Your task to perform on an android device: check battery use Image 0: 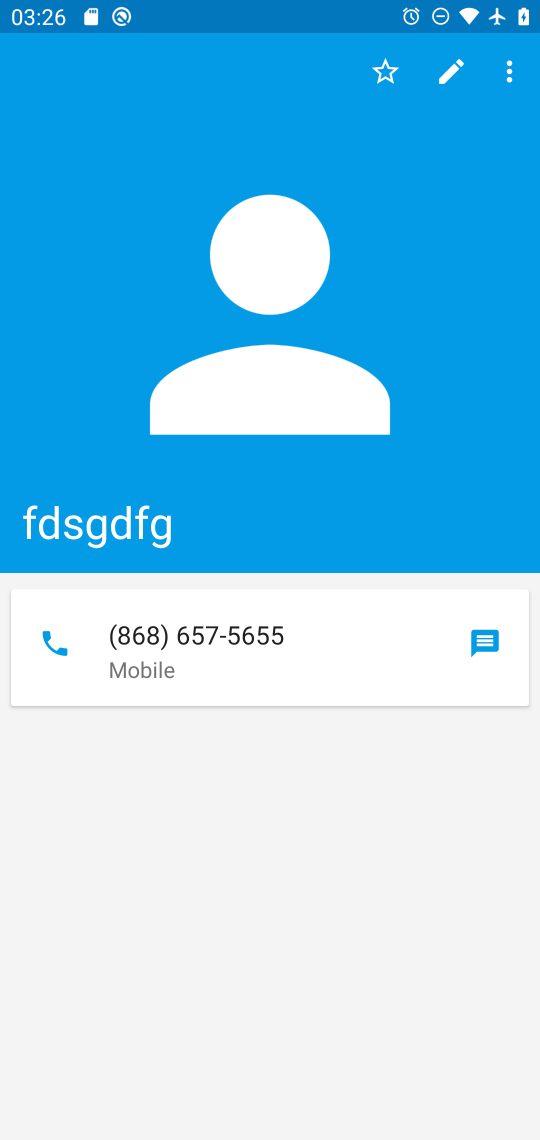
Step 0: press home button
Your task to perform on an android device: check battery use Image 1: 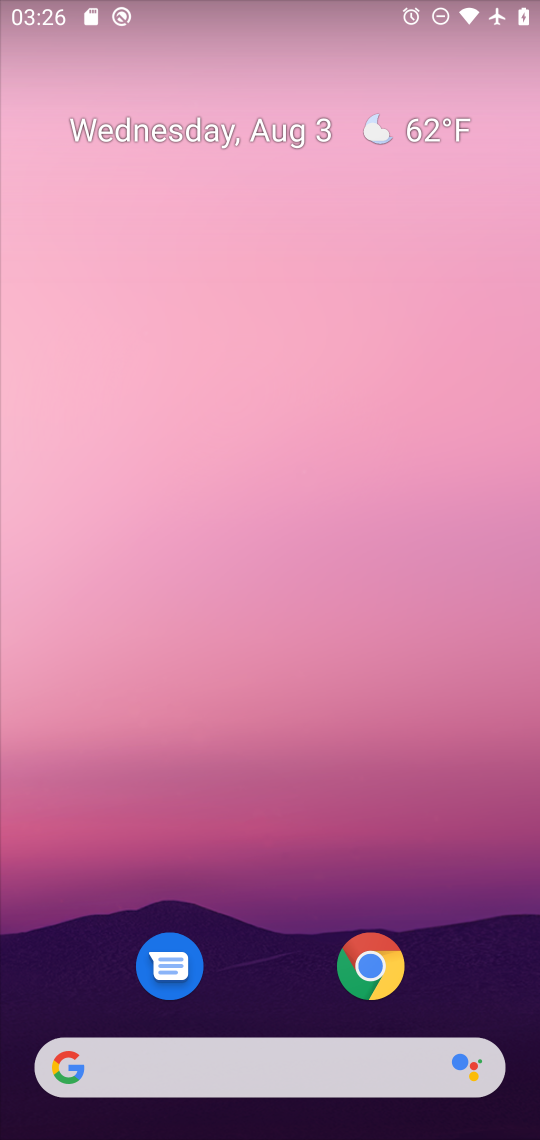
Step 1: drag from (264, 983) to (307, 253)
Your task to perform on an android device: check battery use Image 2: 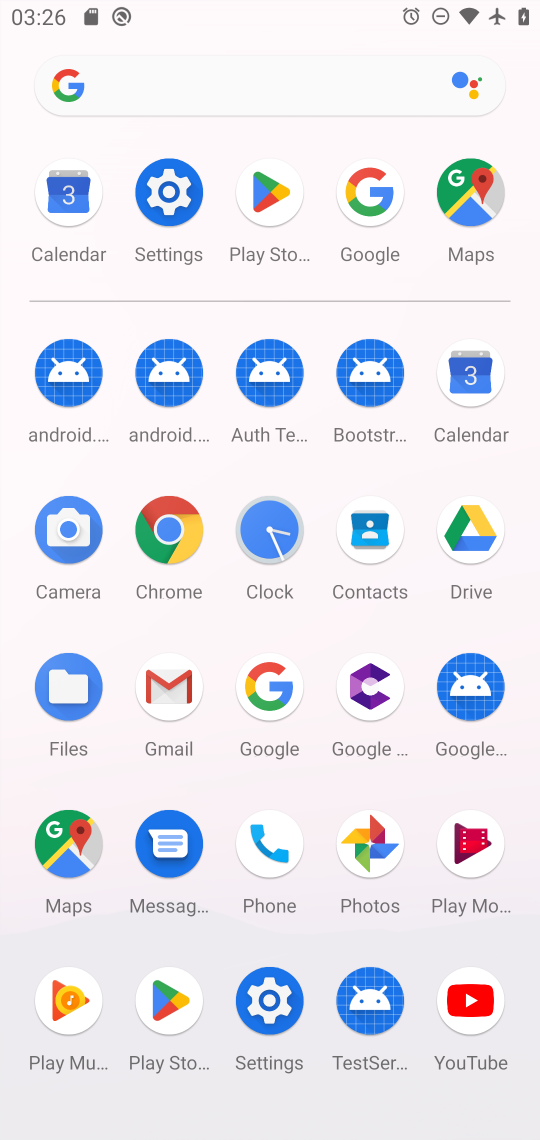
Step 2: click (187, 194)
Your task to perform on an android device: check battery use Image 3: 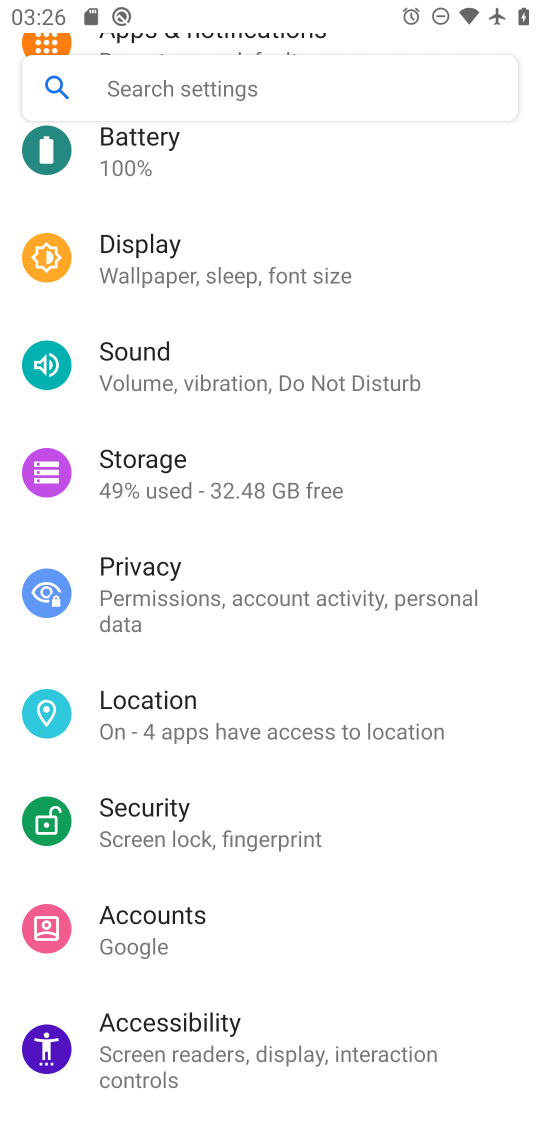
Step 3: click (153, 156)
Your task to perform on an android device: check battery use Image 4: 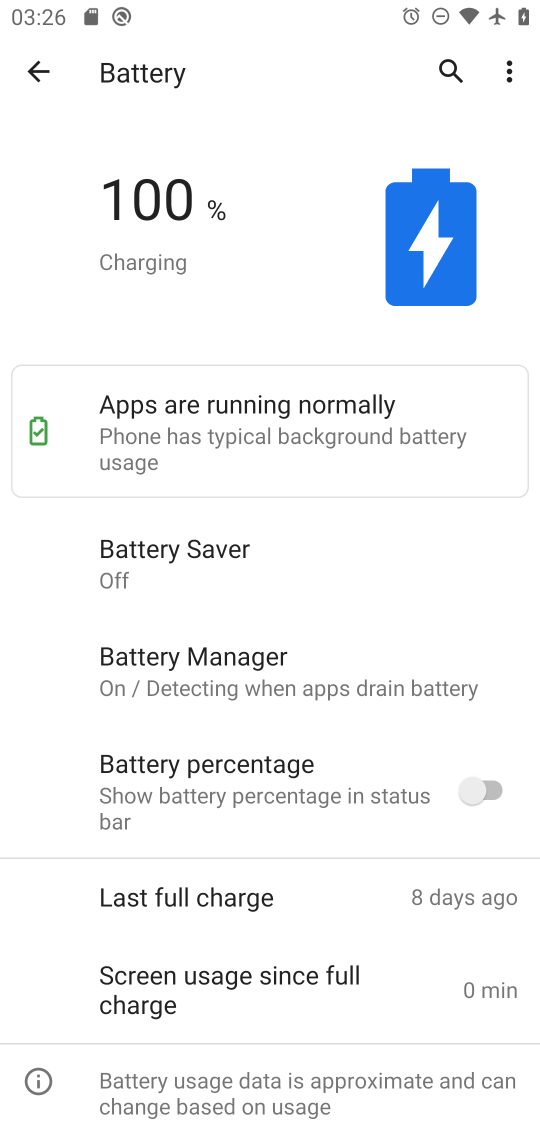
Step 4: click (507, 80)
Your task to perform on an android device: check battery use Image 5: 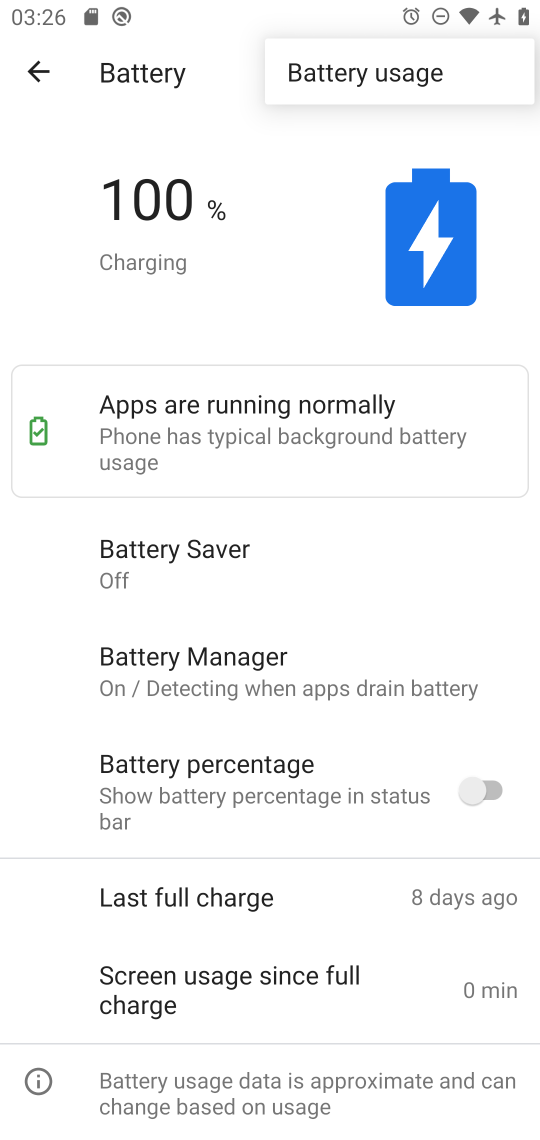
Step 5: click (424, 83)
Your task to perform on an android device: check battery use Image 6: 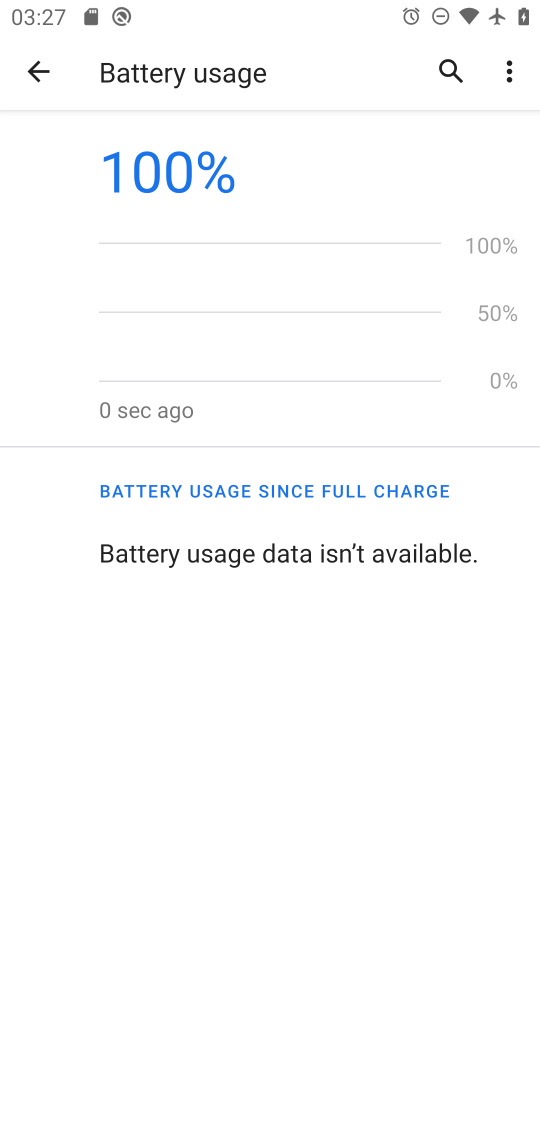
Step 6: task complete